Your task to perform on an android device: open chrome privacy settings Image 0: 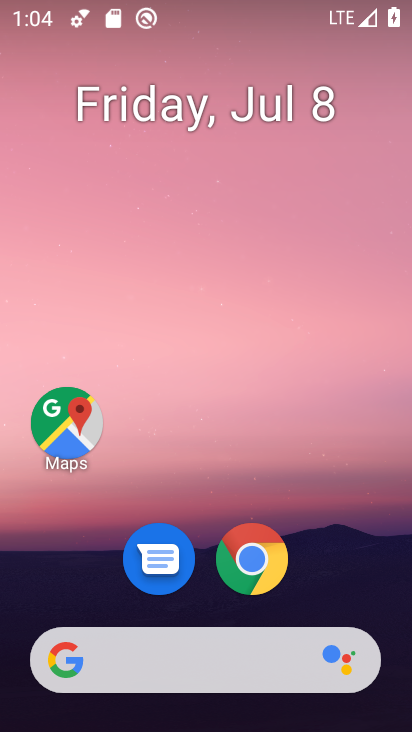
Step 0: click (245, 586)
Your task to perform on an android device: open chrome privacy settings Image 1: 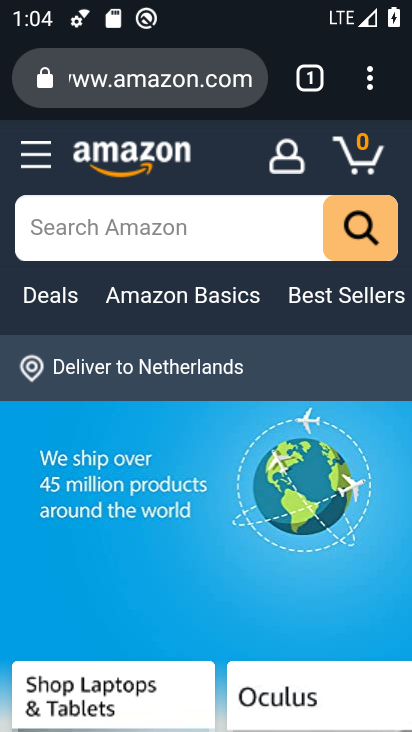
Step 1: click (378, 81)
Your task to perform on an android device: open chrome privacy settings Image 2: 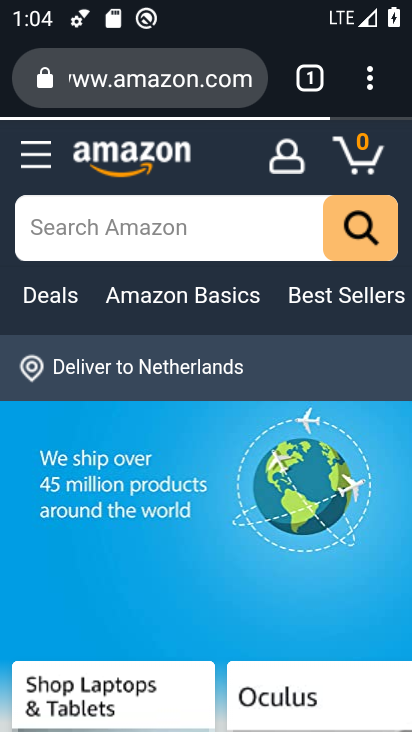
Step 2: click (369, 80)
Your task to perform on an android device: open chrome privacy settings Image 3: 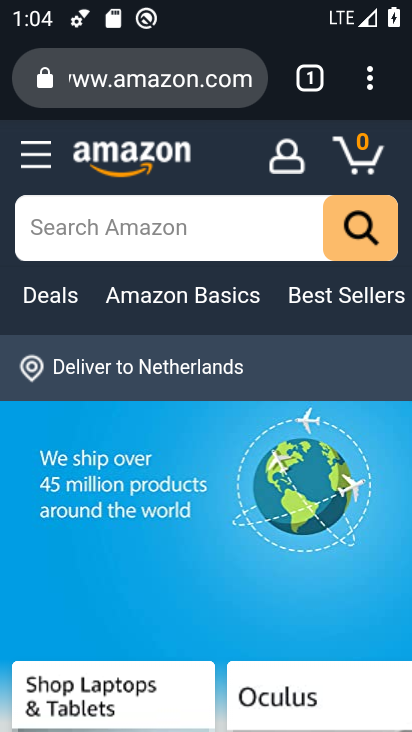
Step 3: drag from (372, 79) to (112, 610)
Your task to perform on an android device: open chrome privacy settings Image 4: 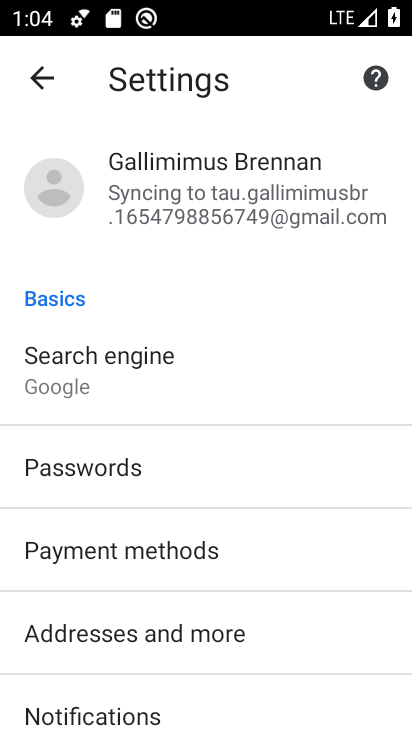
Step 4: drag from (183, 631) to (122, 158)
Your task to perform on an android device: open chrome privacy settings Image 5: 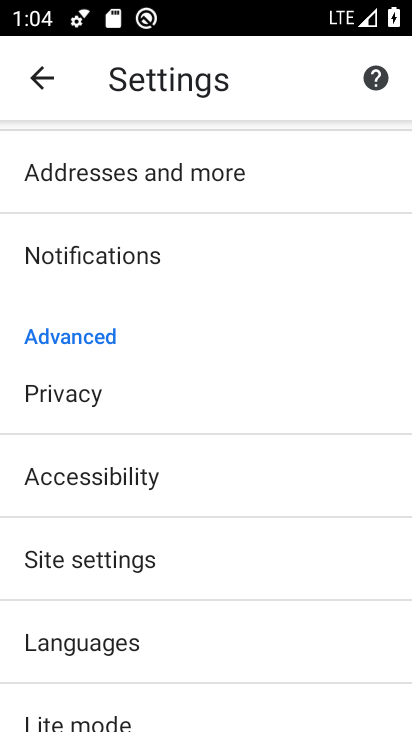
Step 5: click (107, 383)
Your task to perform on an android device: open chrome privacy settings Image 6: 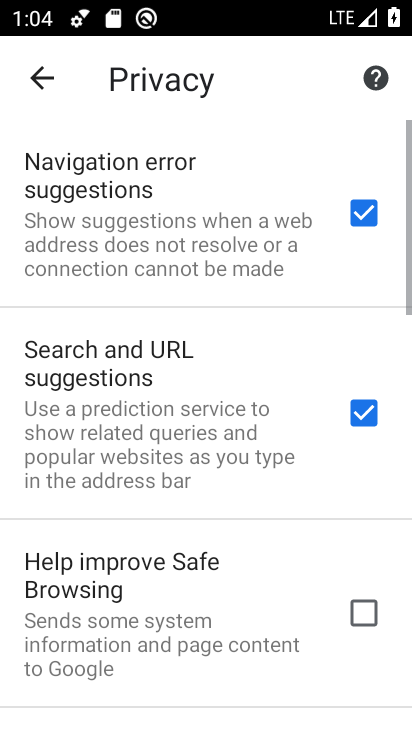
Step 6: task complete